Your task to perform on an android device: open device folders in google photos Image 0: 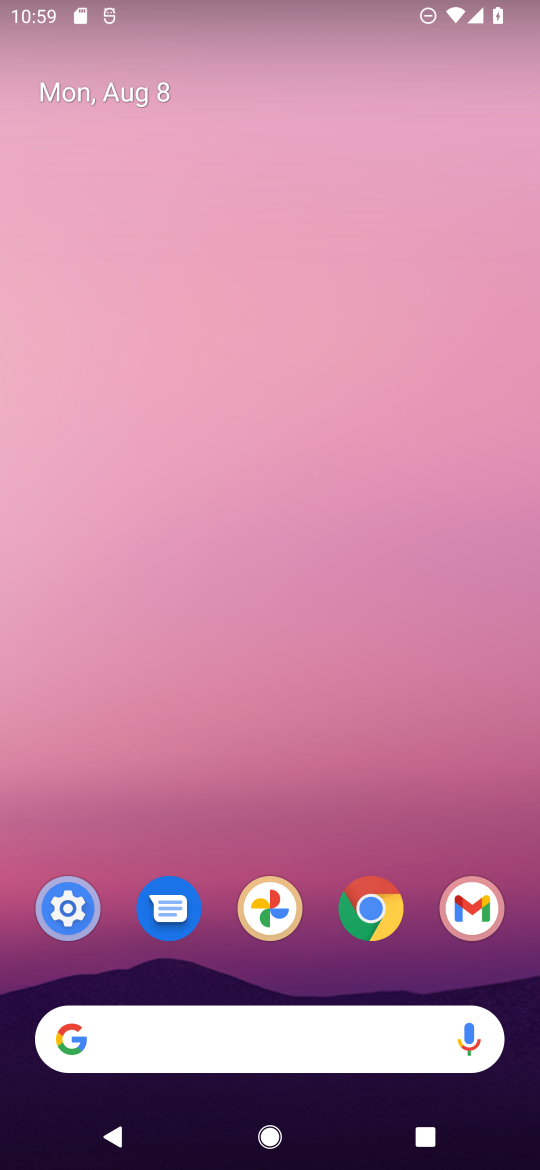
Step 0: press home button
Your task to perform on an android device: open device folders in google photos Image 1: 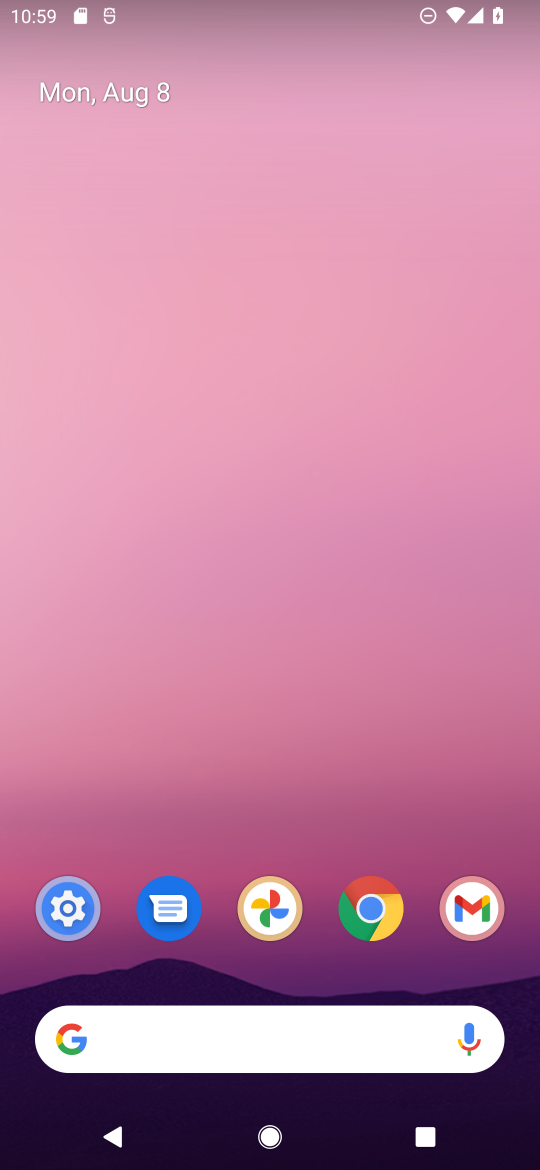
Step 1: click (268, 905)
Your task to perform on an android device: open device folders in google photos Image 2: 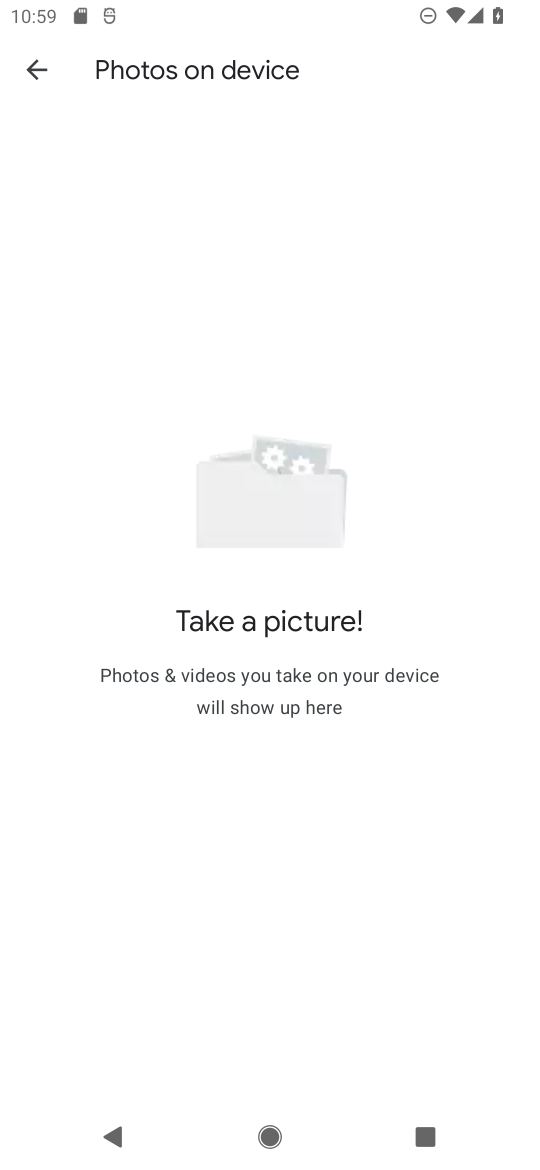
Step 2: task complete